Your task to perform on an android device: Open calendar and show me the first week of next month Image 0: 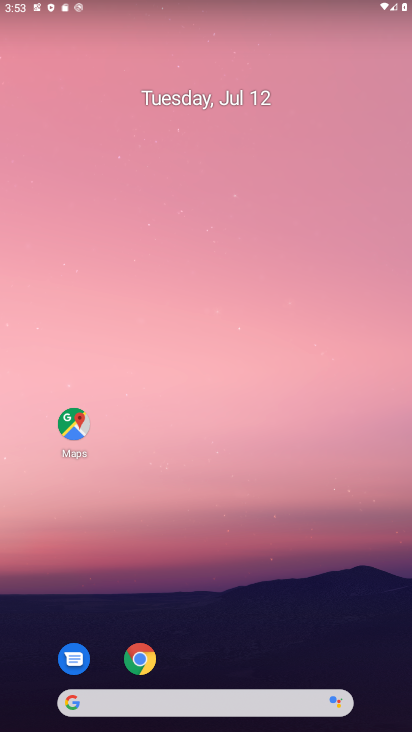
Step 0: click (203, 724)
Your task to perform on an android device: Open calendar and show me the first week of next month Image 1: 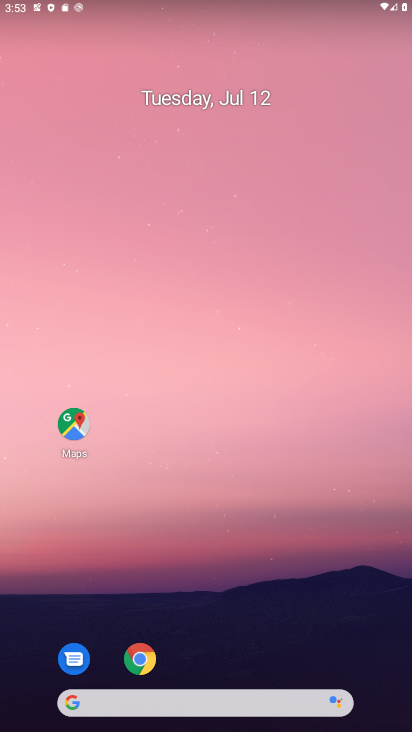
Step 1: drag from (199, 198) to (199, 72)
Your task to perform on an android device: Open calendar and show me the first week of next month Image 2: 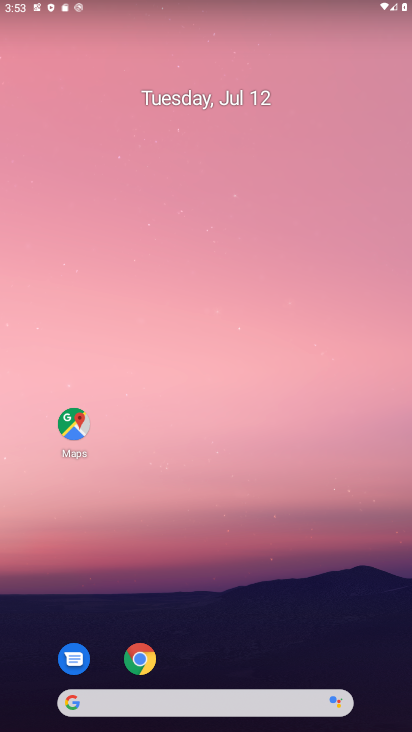
Step 2: drag from (239, 723) to (238, 166)
Your task to perform on an android device: Open calendar and show me the first week of next month Image 3: 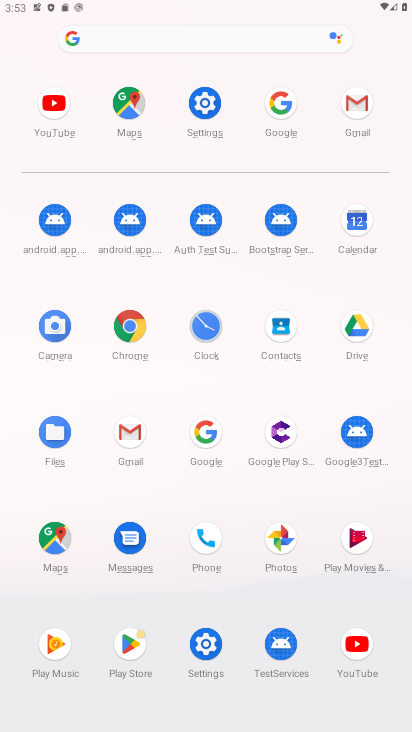
Step 3: click (358, 219)
Your task to perform on an android device: Open calendar and show me the first week of next month Image 4: 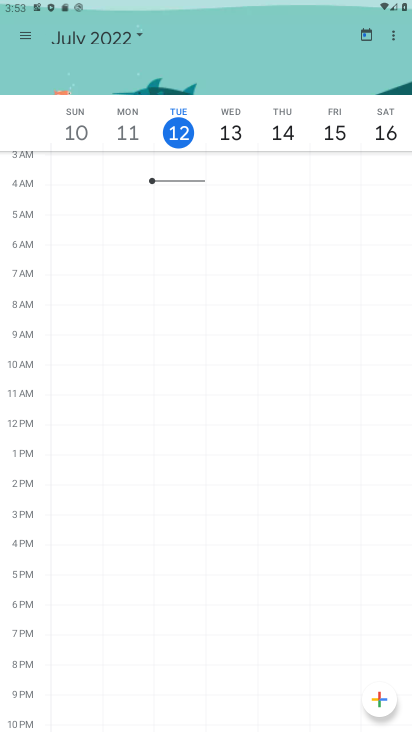
Step 4: click (132, 27)
Your task to perform on an android device: Open calendar and show me the first week of next month Image 5: 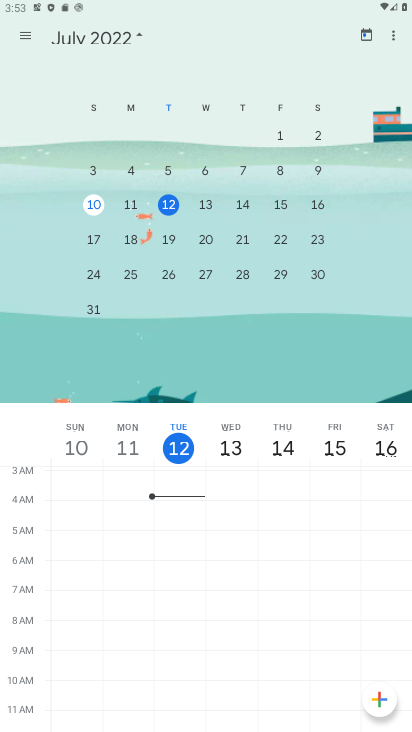
Step 5: drag from (341, 231) to (24, 237)
Your task to perform on an android device: Open calendar and show me the first week of next month Image 6: 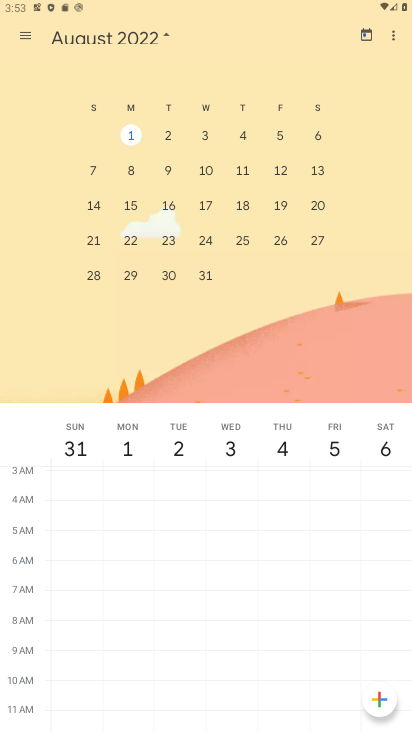
Step 6: click (23, 37)
Your task to perform on an android device: Open calendar and show me the first week of next month Image 7: 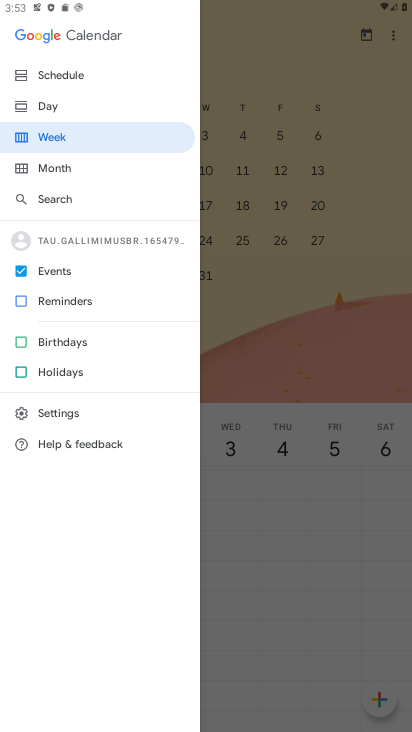
Step 7: click (62, 132)
Your task to perform on an android device: Open calendar and show me the first week of next month Image 8: 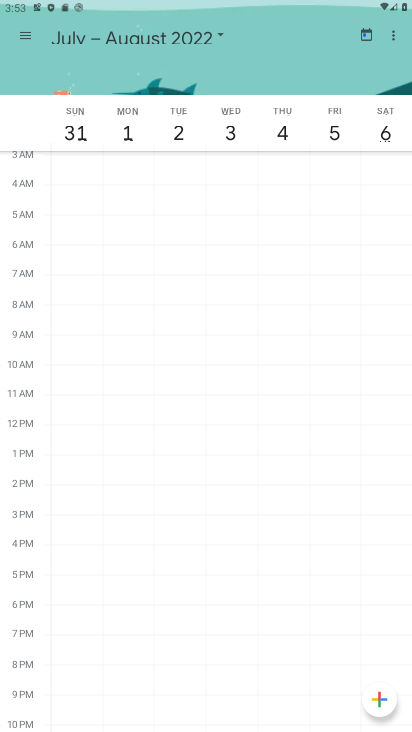
Step 8: task complete